Your task to perform on an android device: open a bookmark in the chrome app Image 0: 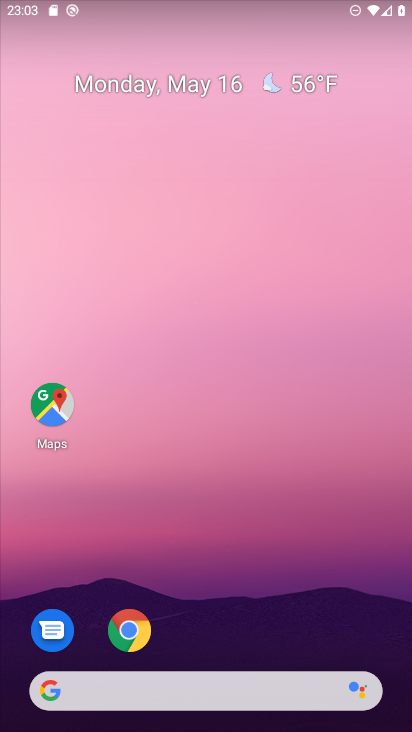
Step 0: click (140, 632)
Your task to perform on an android device: open a bookmark in the chrome app Image 1: 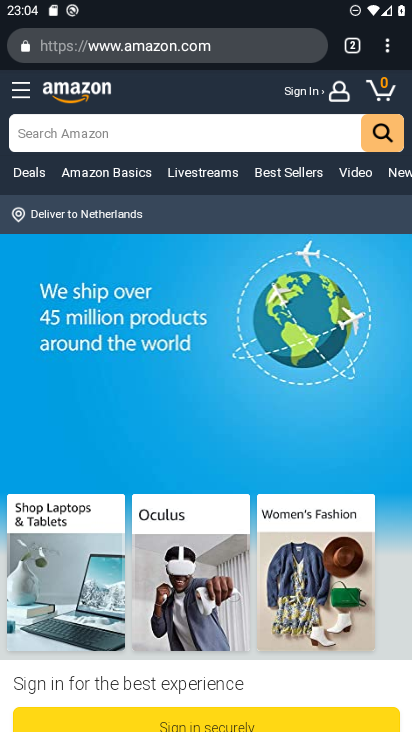
Step 1: click (382, 44)
Your task to perform on an android device: open a bookmark in the chrome app Image 2: 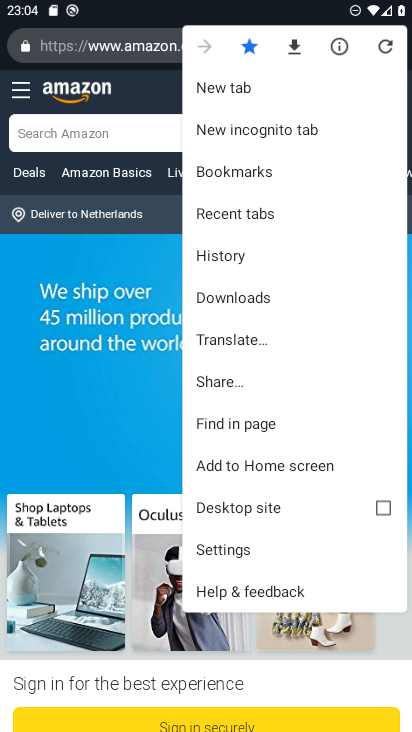
Step 2: click (262, 167)
Your task to perform on an android device: open a bookmark in the chrome app Image 3: 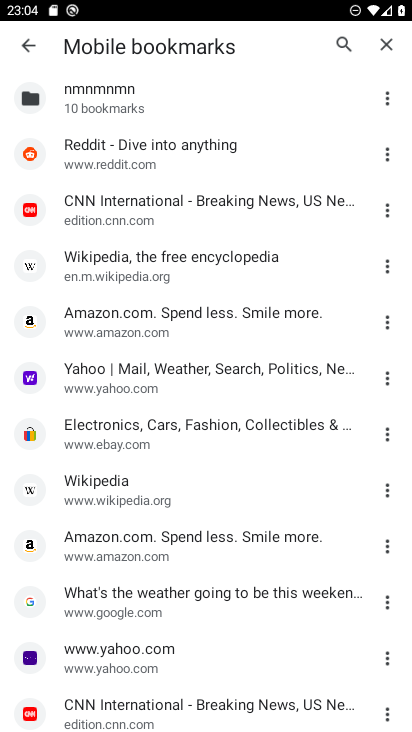
Step 3: click (91, 480)
Your task to perform on an android device: open a bookmark in the chrome app Image 4: 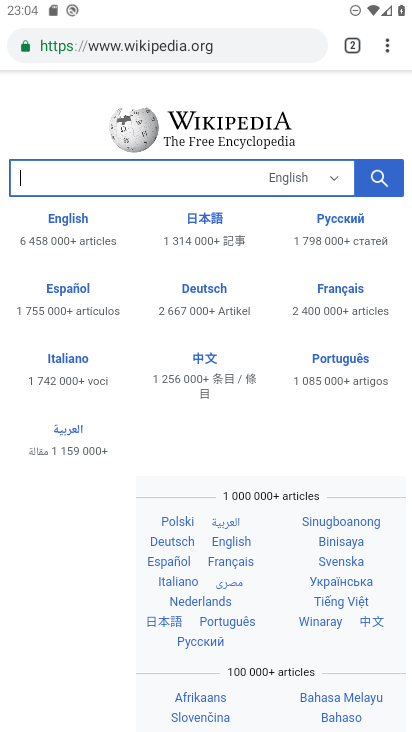
Step 4: task complete